Your task to perform on an android device: Open Google Chrome Image 0: 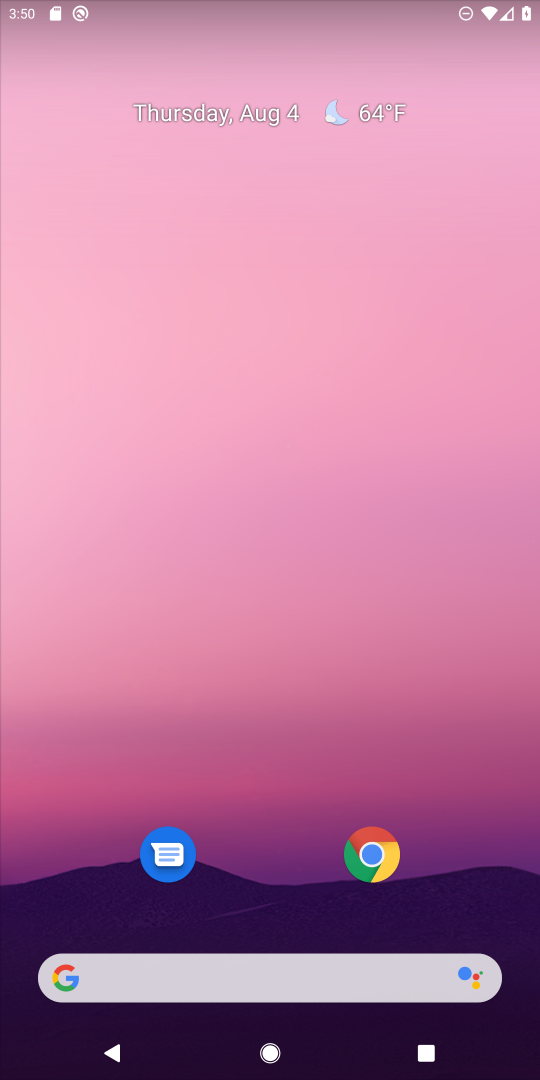
Step 0: click (367, 864)
Your task to perform on an android device: Open Google Chrome Image 1: 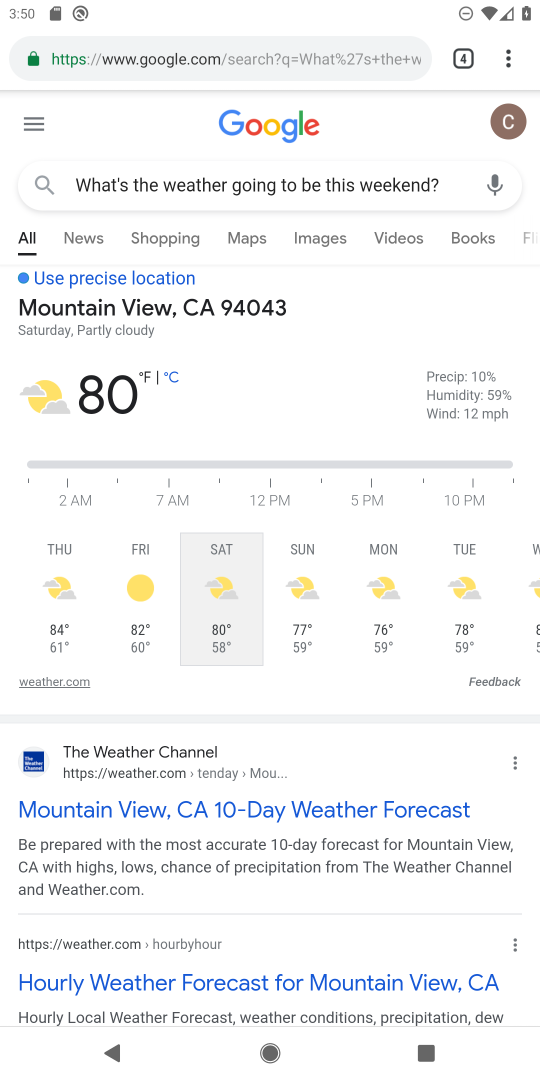
Step 1: task complete